Your task to perform on an android device: Open battery settings Image 0: 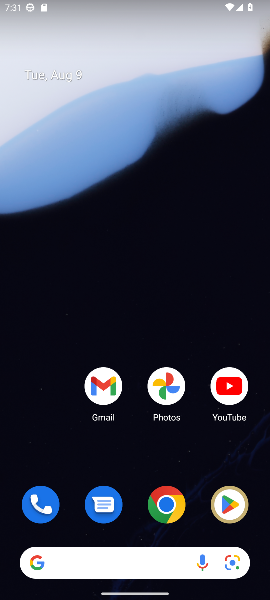
Step 0: press home button
Your task to perform on an android device: Open battery settings Image 1: 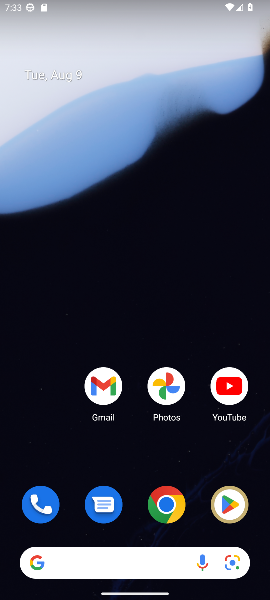
Step 1: drag from (148, 442) to (153, 0)
Your task to perform on an android device: Open battery settings Image 2: 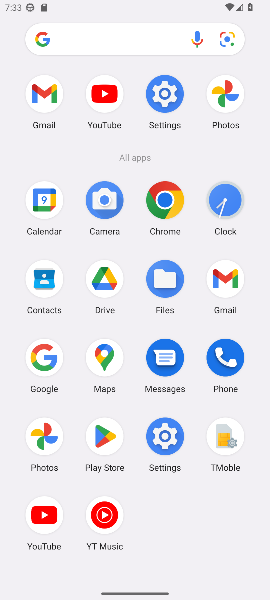
Step 2: click (148, 454)
Your task to perform on an android device: Open battery settings Image 3: 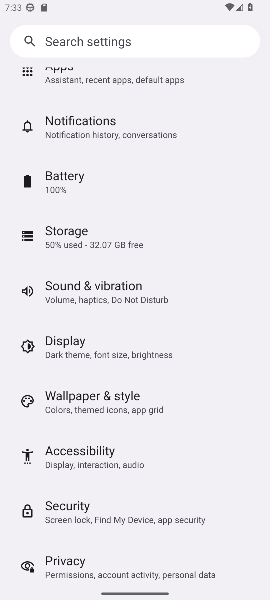
Step 3: click (60, 196)
Your task to perform on an android device: Open battery settings Image 4: 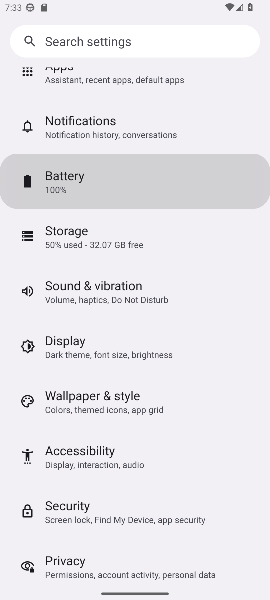
Step 4: task complete